Your task to perform on an android device: Open Google Chrome and open the bookmarks view Image 0: 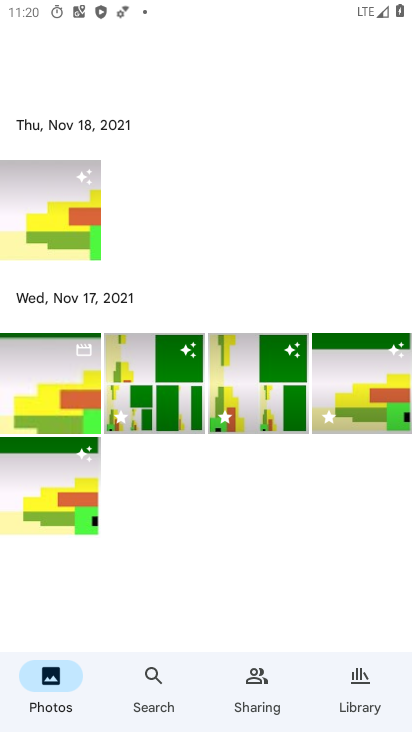
Step 0: press home button
Your task to perform on an android device: Open Google Chrome and open the bookmarks view Image 1: 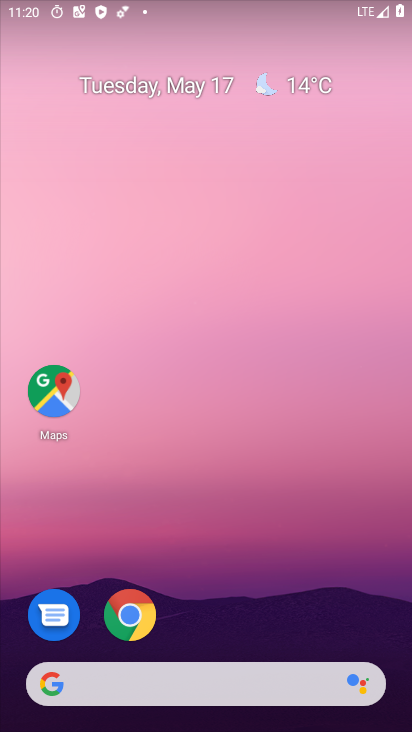
Step 1: click (130, 628)
Your task to perform on an android device: Open Google Chrome and open the bookmarks view Image 2: 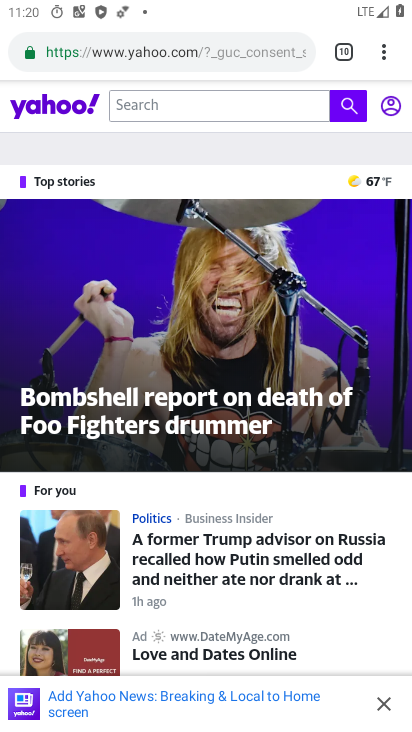
Step 2: task complete